Your task to perform on an android device: Open the calculator Image 0: 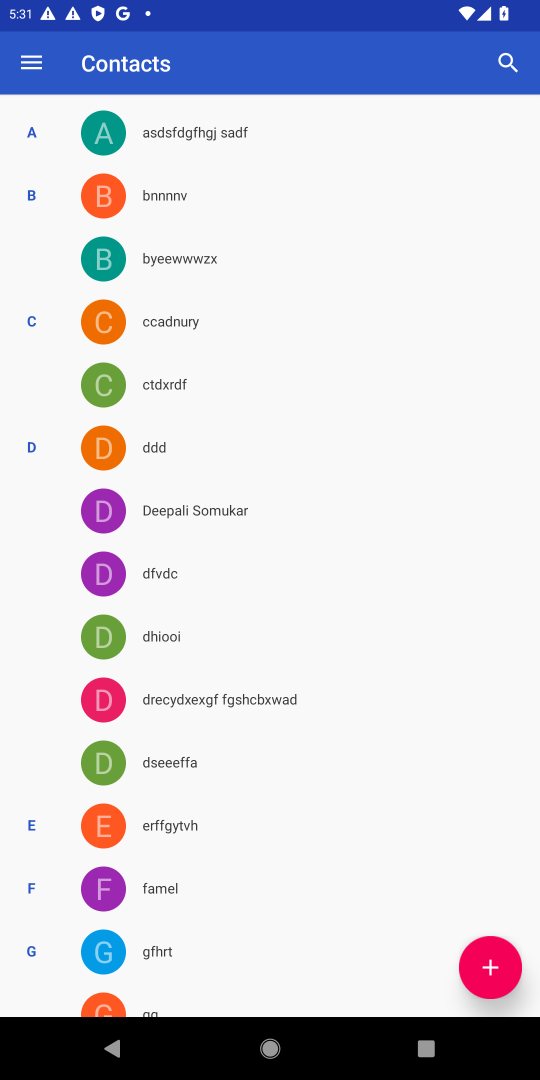
Step 0: press home button
Your task to perform on an android device: Open the calculator Image 1: 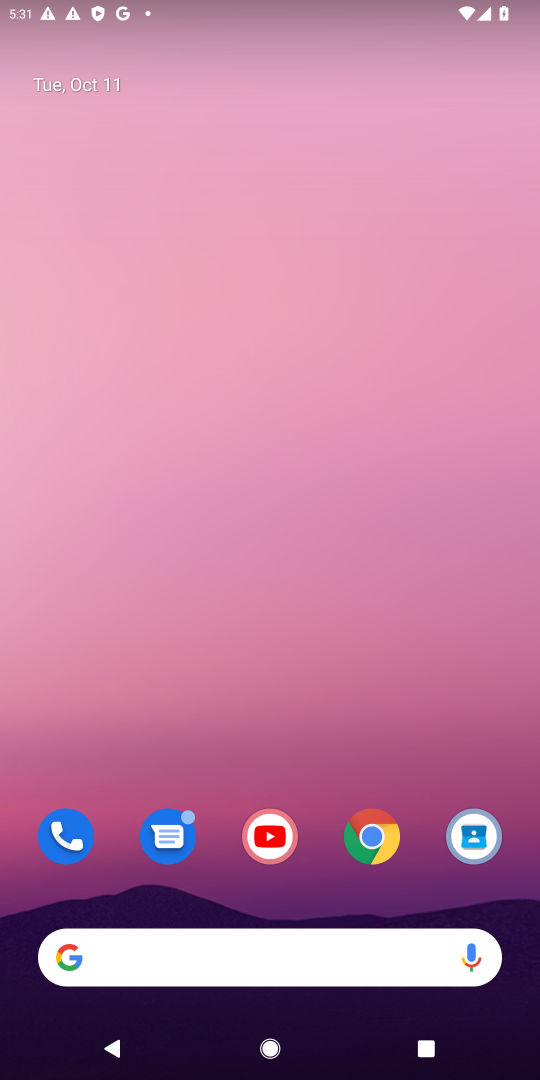
Step 1: task complete